Your task to perform on an android device: What's on my calendar tomorrow? Image 0: 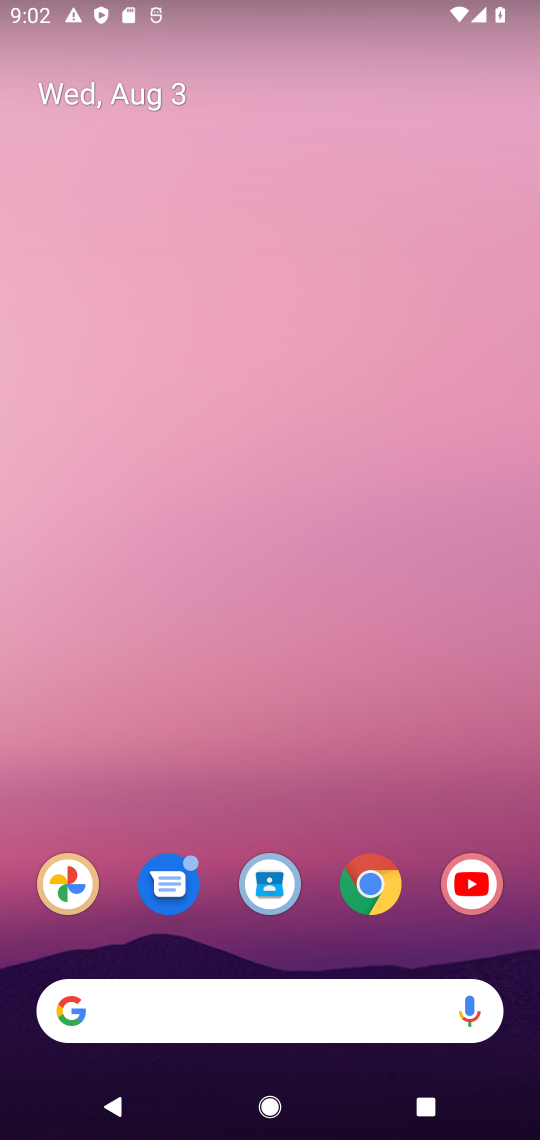
Step 0: press home button
Your task to perform on an android device: What's on my calendar tomorrow? Image 1: 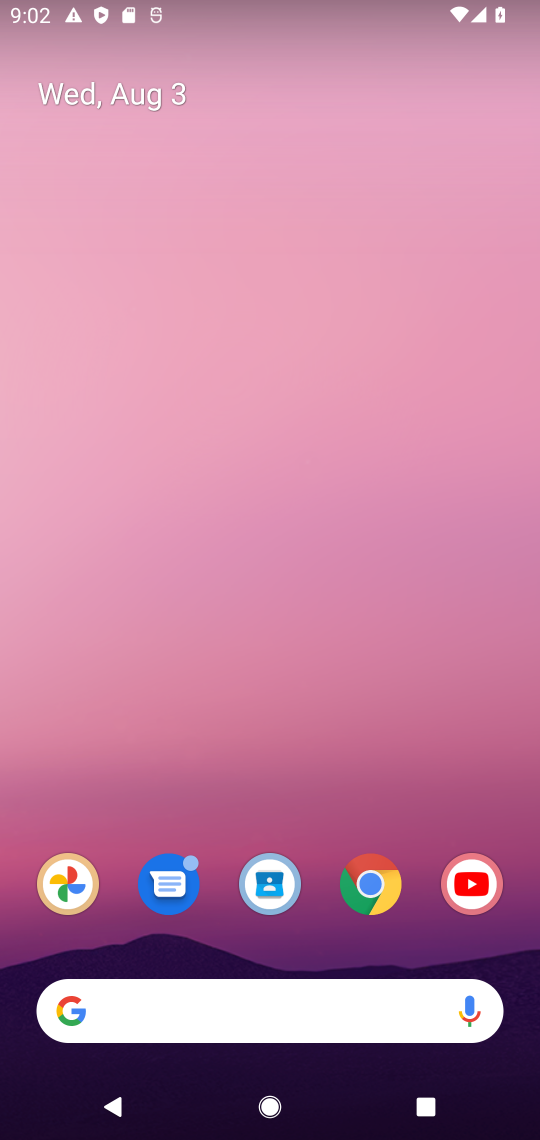
Step 1: drag from (369, 1000) to (267, 485)
Your task to perform on an android device: What's on my calendar tomorrow? Image 2: 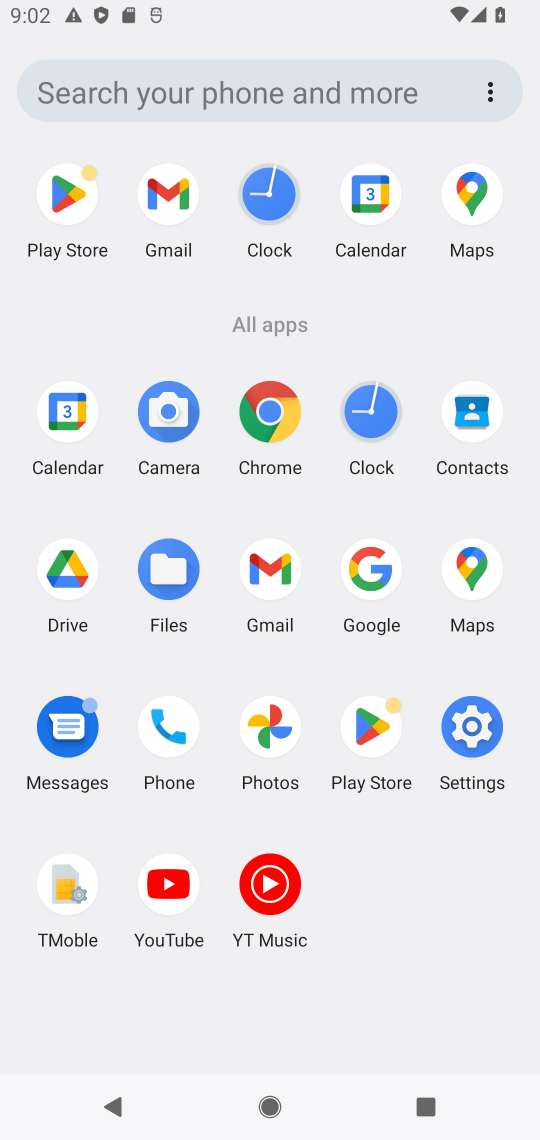
Step 2: click (357, 204)
Your task to perform on an android device: What's on my calendar tomorrow? Image 3: 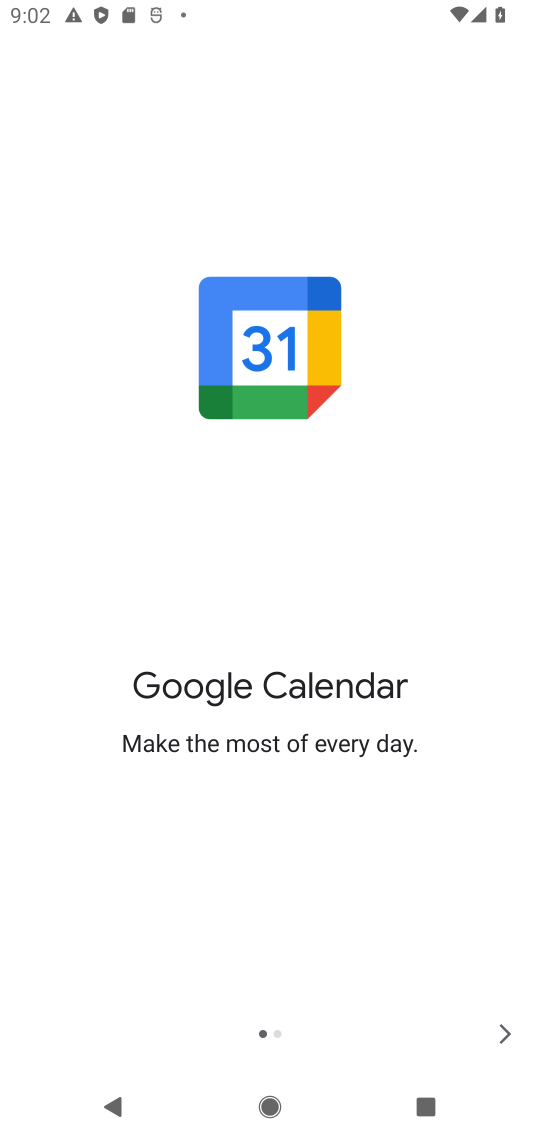
Step 3: click (501, 1025)
Your task to perform on an android device: What's on my calendar tomorrow? Image 4: 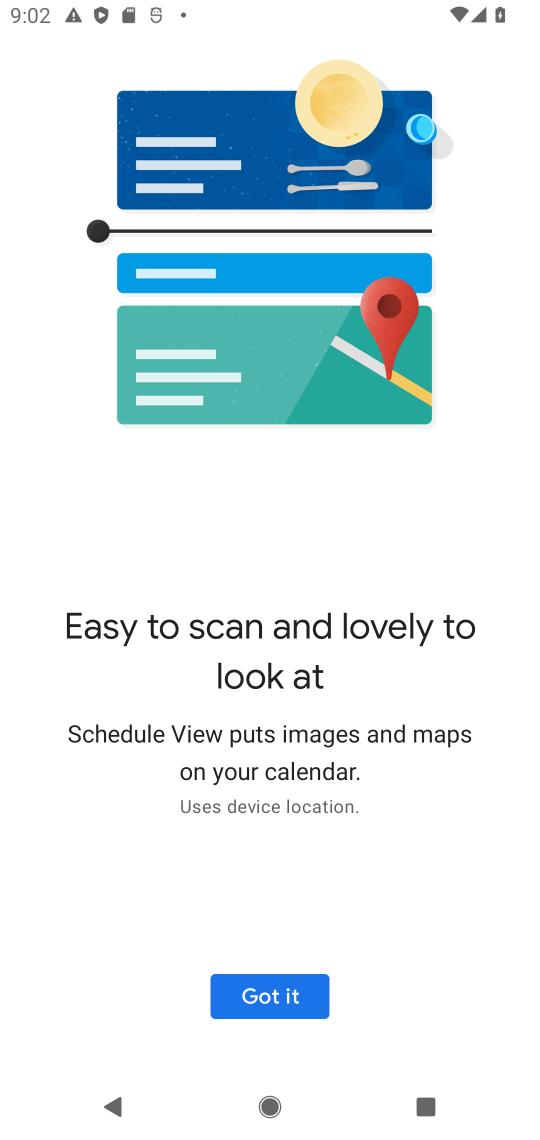
Step 4: click (502, 1036)
Your task to perform on an android device: What's on my calendar tomorrow? Image 5: 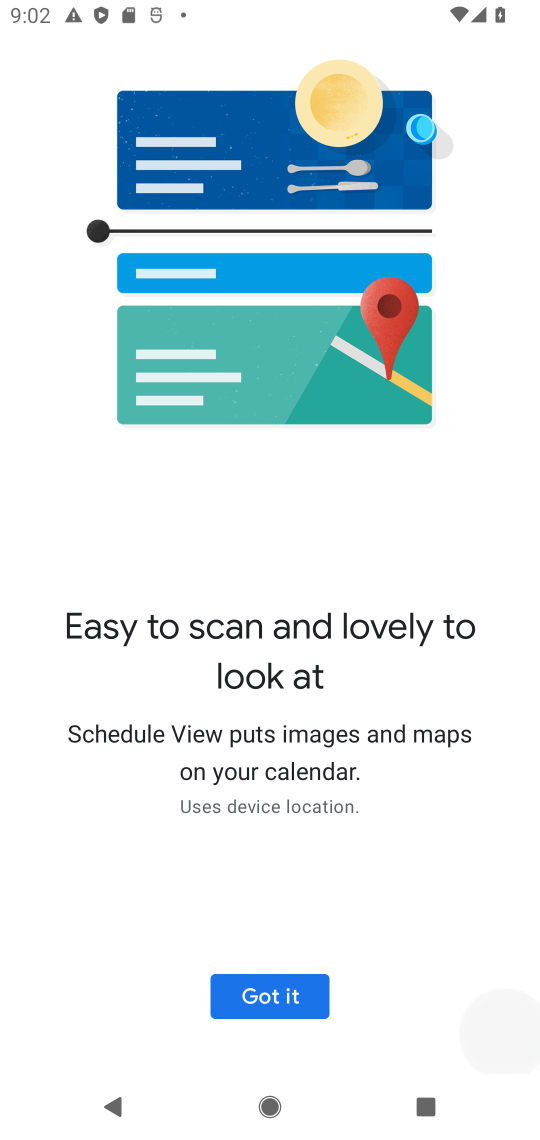
Step 5: click (275, 955)
Your task to perform on an android device: What's on my calendar tomorrow? Image 6: 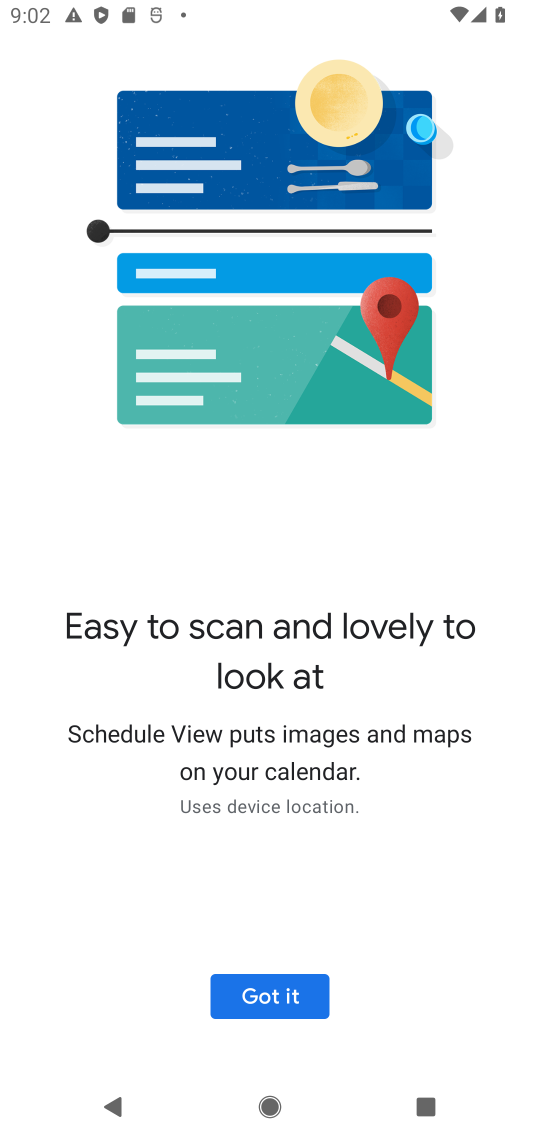
Step 6: click (275, 994)
Your task to perform on an android device: What's on my calendar tomorrow? Image 7: 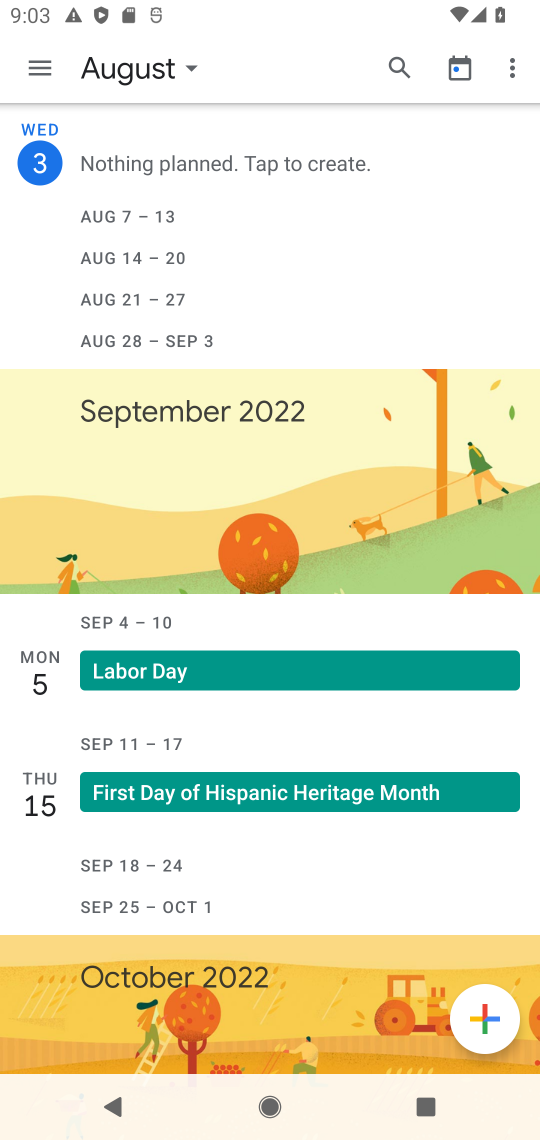
Step 7: click (205, 66)
Your task to perform on an android device: What's on my calendar tomorrow? Image 8: 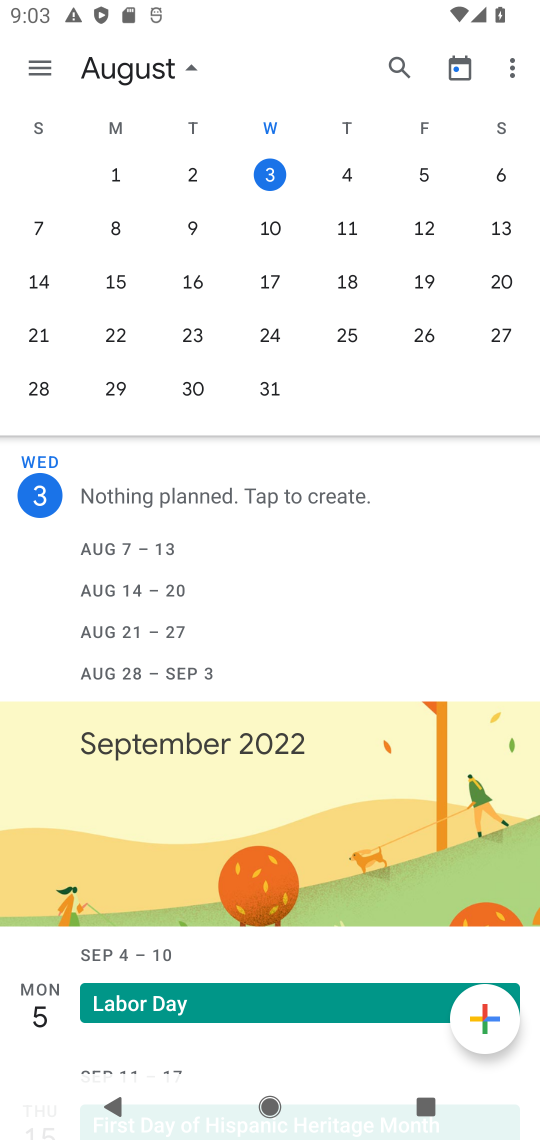
Step 8: click (354, 182)
Your task to perform on an android device: What's on my calendar tomorrow? Image 9: 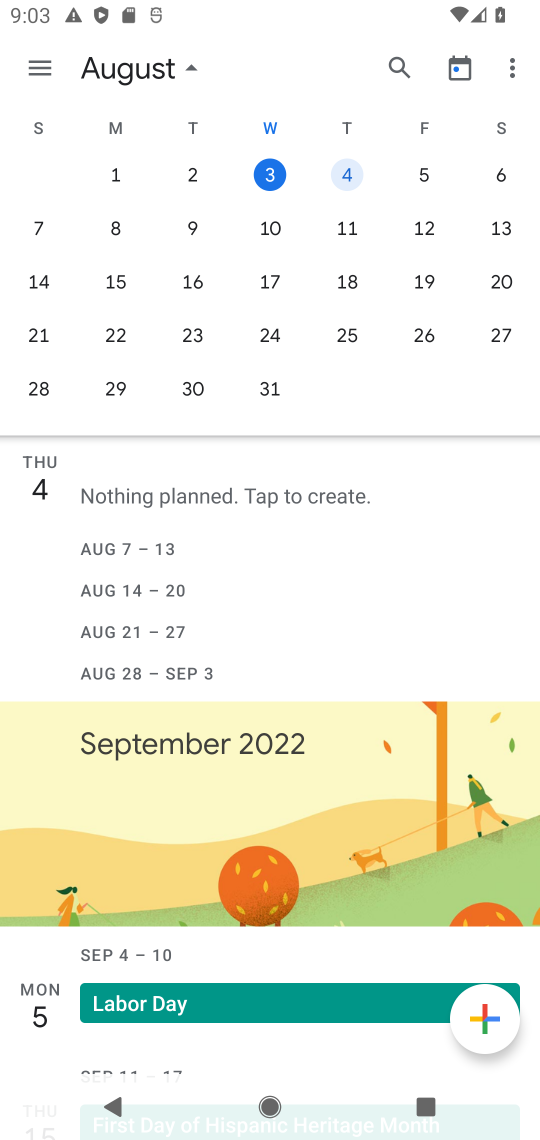
Step 9: task complete